Your task to perform on an android device: What is the news today? Image 0: 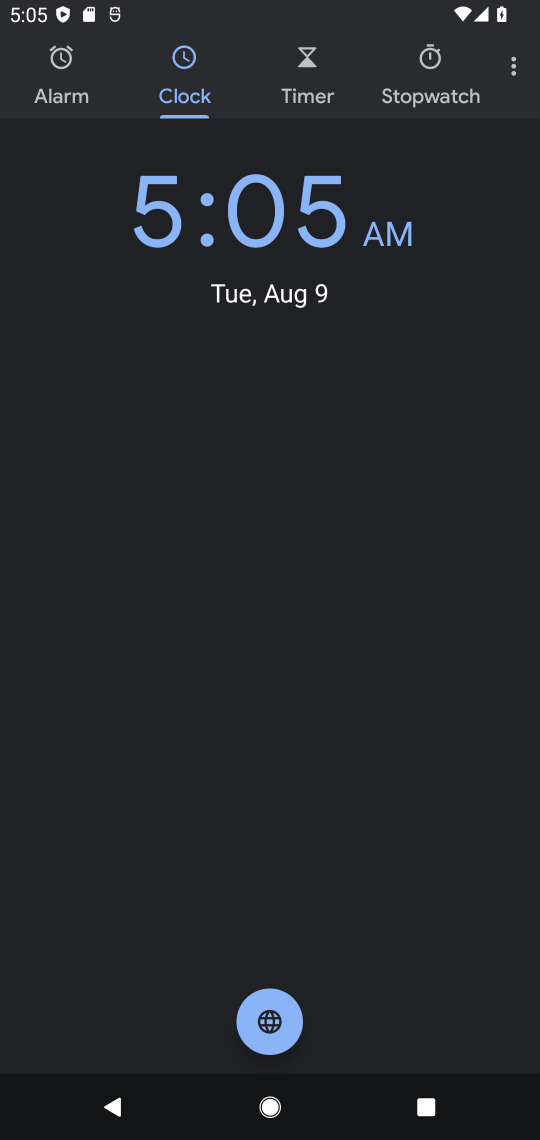
Step 0: press home button
Your task to perform on an android device: What is the news today? Image 1: 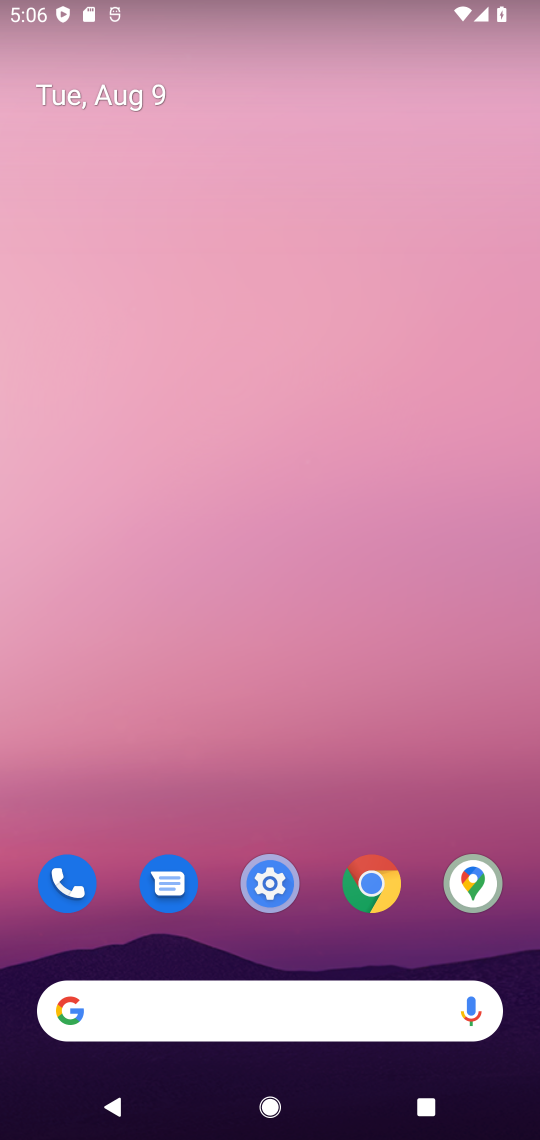
Step 1: drag from (288, 819) to (281, 231)
Your task to perform on an android device: What is the news today? Image 2: 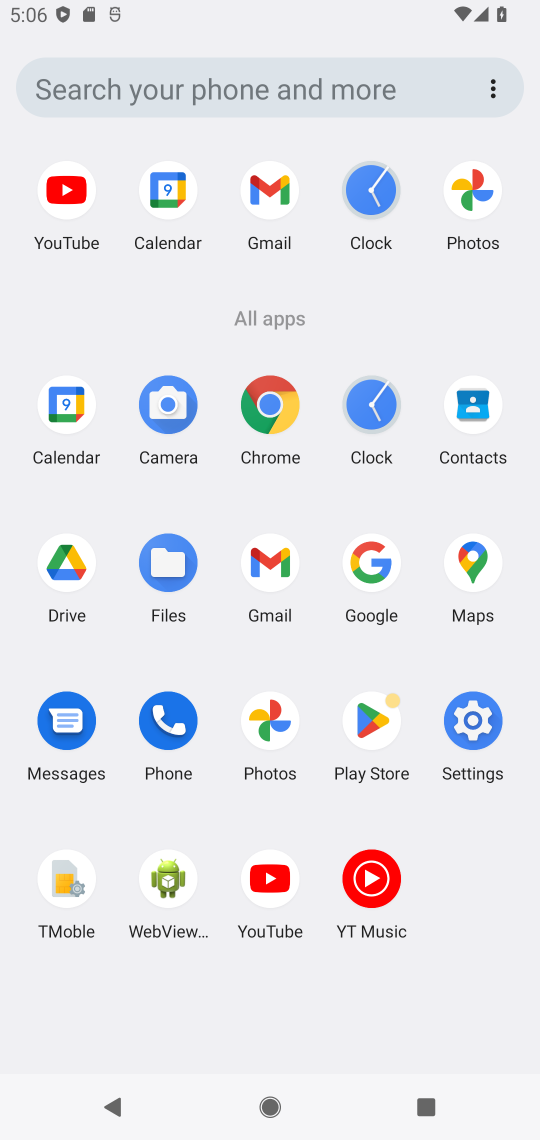
Step 2: click (353, 578)
Your task to perform on an android device: What is the news today? Image 3: 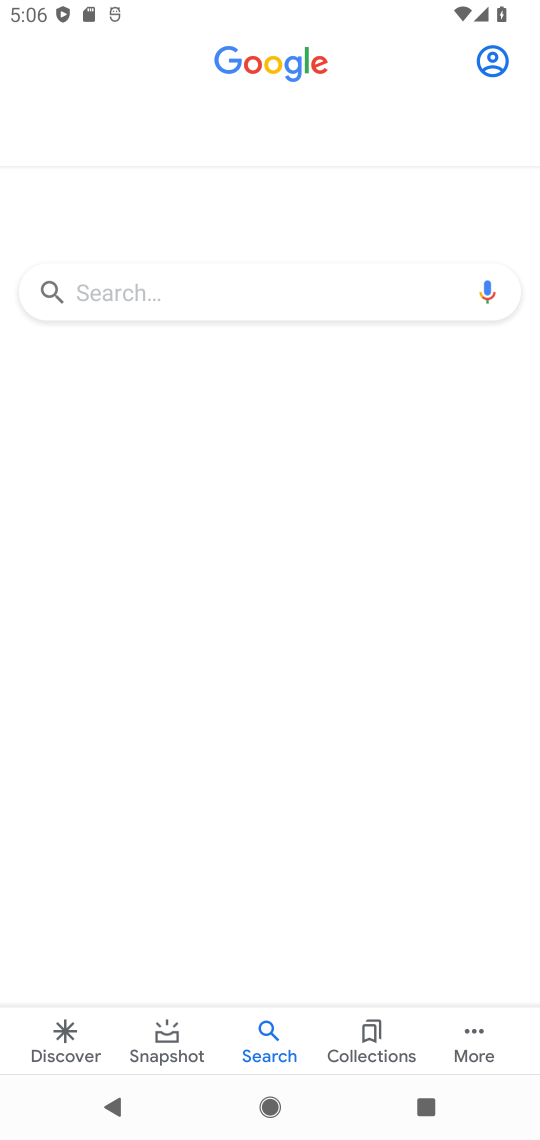
Step 3: click (222, 302)
Your task to perform on an android device: What is the news today? Image 4: 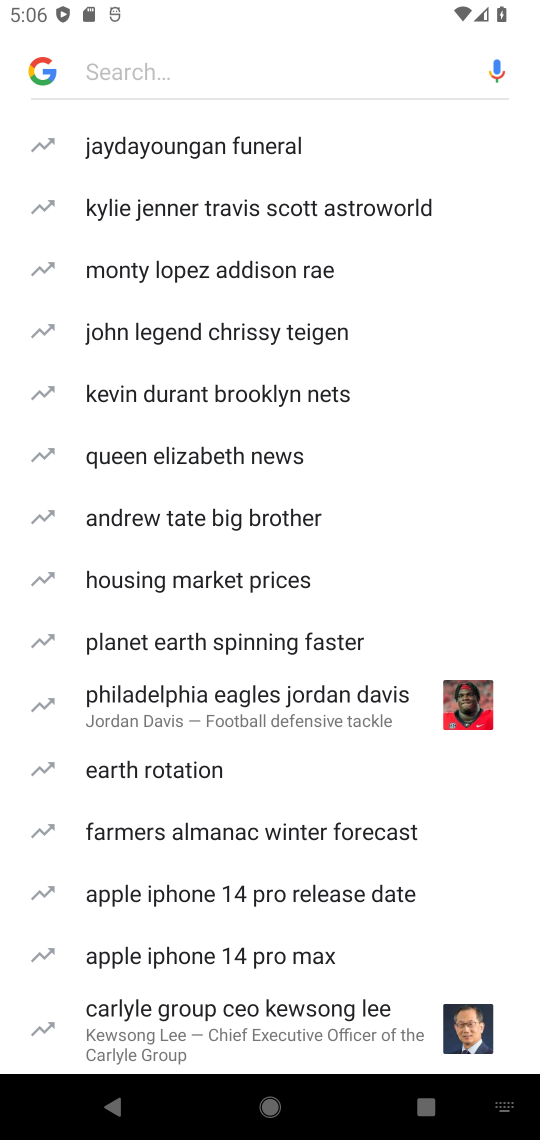
Step 4: type "news today"
Your task to perform on an android device: What is the news today? Image 5: 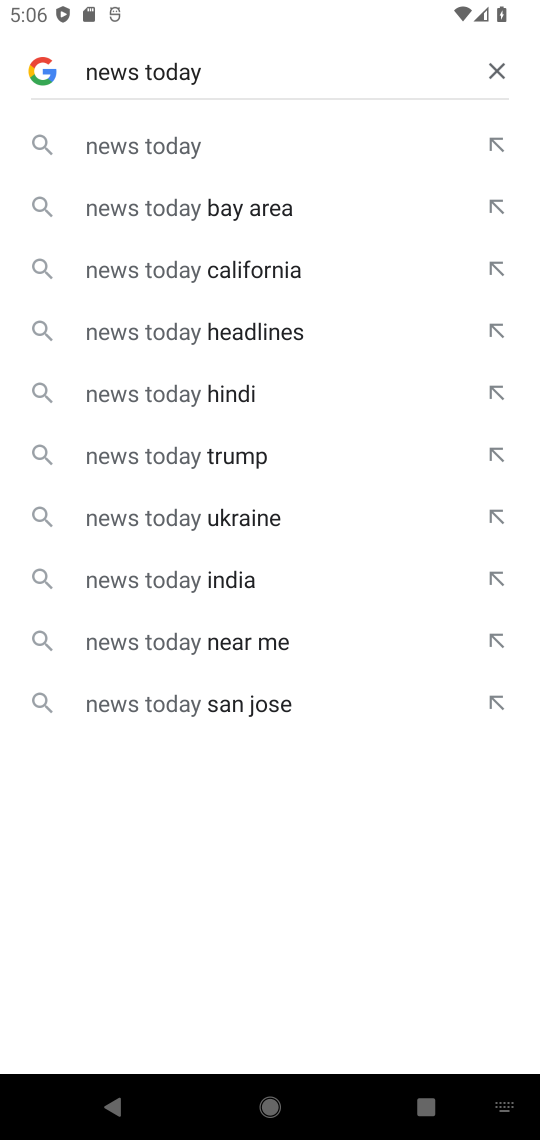
Step 5: click (185, 164)
Your task to perform on an android device: What is the news today? Image 6: 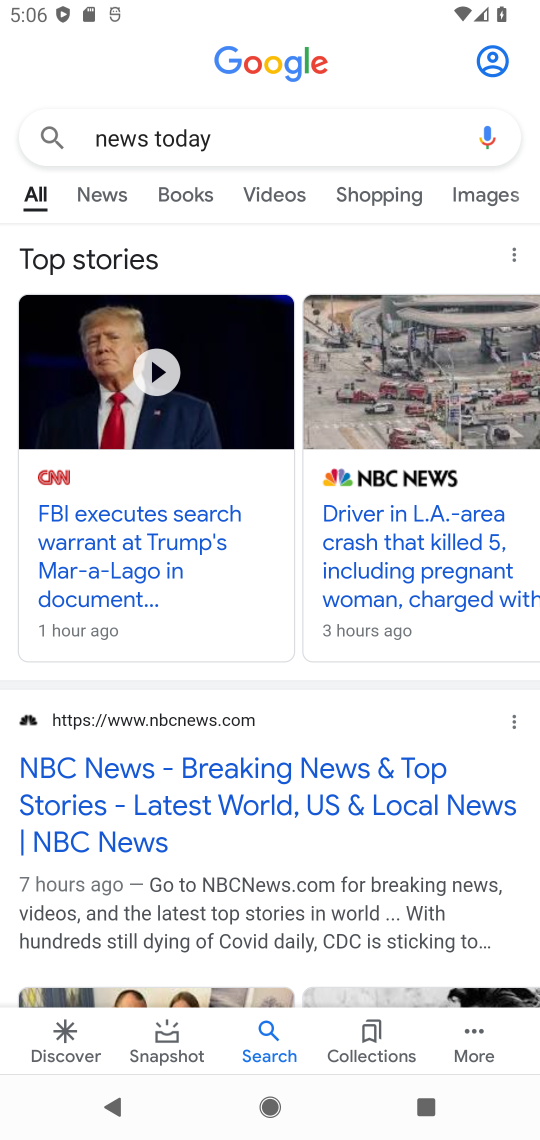
Step 6: click (99, 197)
Your task to perform on an android device: What is the news today? Image 7: 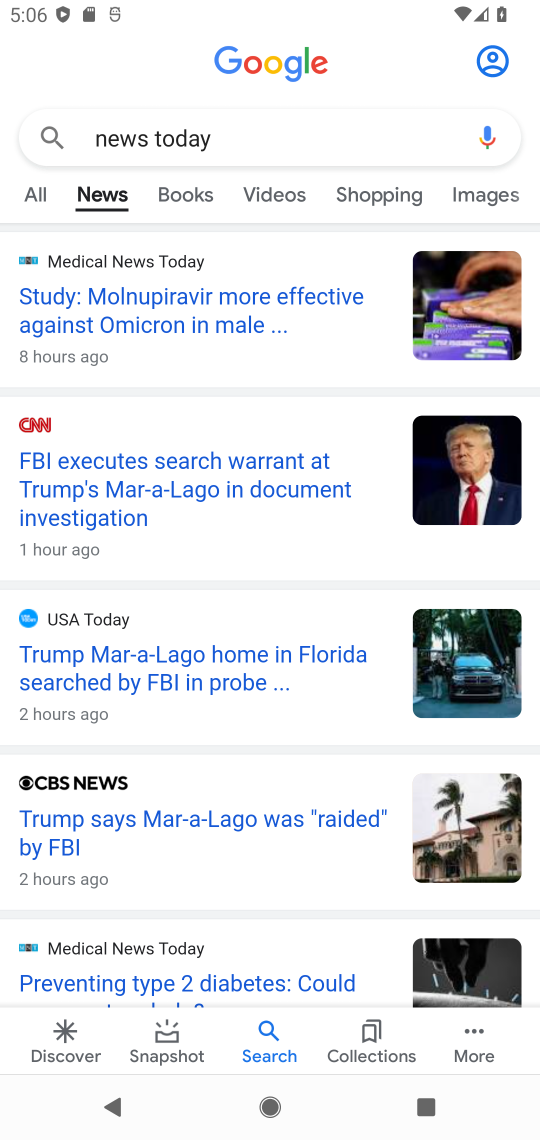
Step 7: task complete